Your task to perform on an android device: toggle airplane mode Image 0: 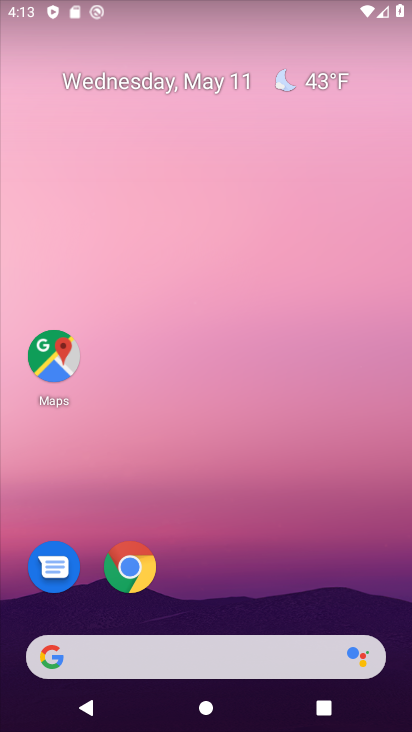
Step 0: drag from (185, 604) to (265, 16)
Your task to perform on an android device: toggle airplane mode Image 1: 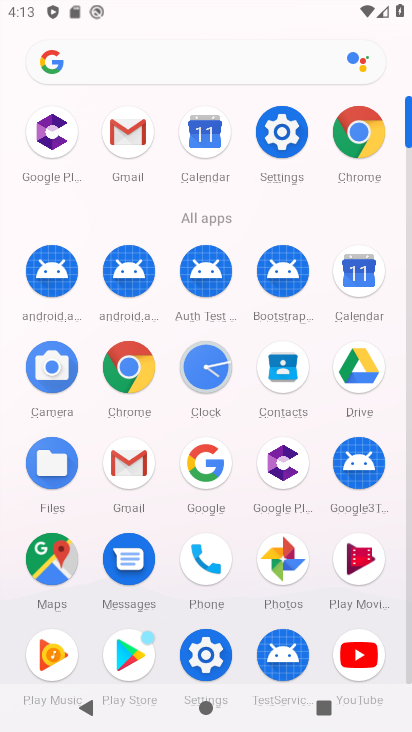
Step 1: click (285, 135)
Your task to perform on an android device: toggle airplane mode Image 2: 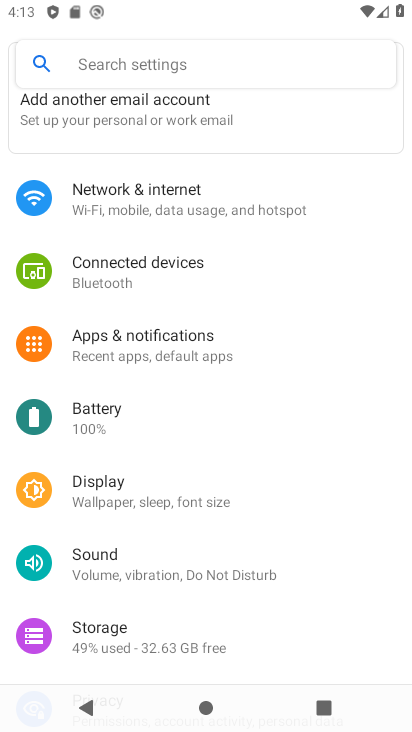
Step 2: drag from (295, 183) to (240, 410)
Your task to perform on an android device: toggle airplane mode Image 3: 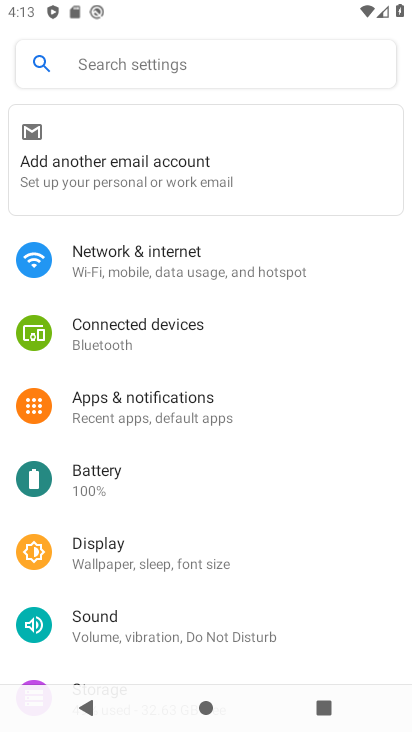
Step 3: click (253, 232)
Your task to perform on an android device: toggle airplane mode Image 4: 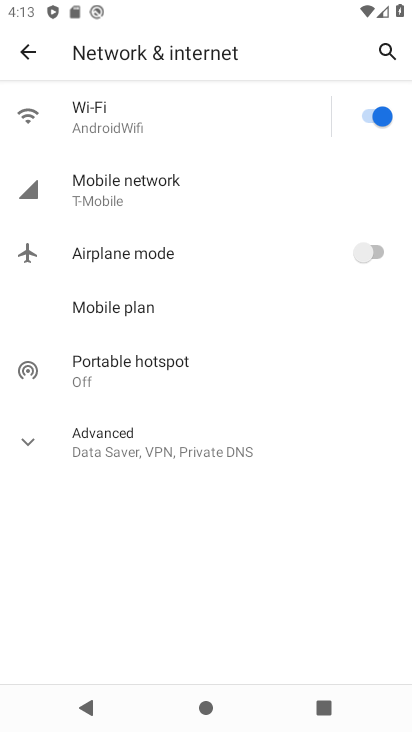
Step 4: click (372, 251)
Your task to perform on an android device: toggle airplane mode Image 5: 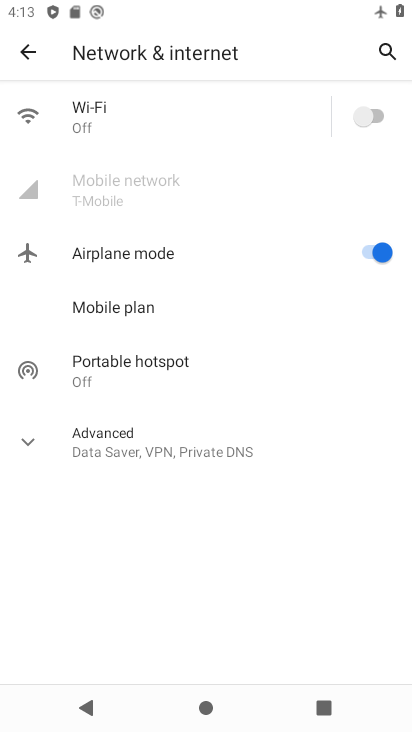
Step 5: task complete